Your task to perform on an android device: turn smart compose on in the gmail app Image 0: 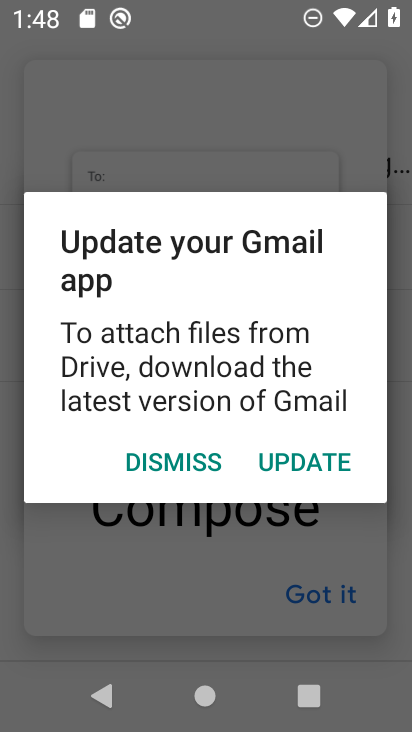
Step 0: press home button
Your task to perform on an android device: turn smart compose on in the gmail app Image 1: 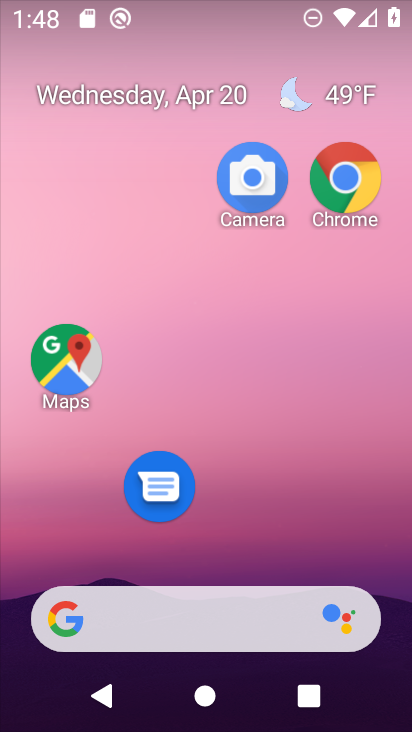
Step 1: drag from (351, 640) to (317, 201)
Your task to perform on an android device: turn smart compose on in the gmail app Image 2: 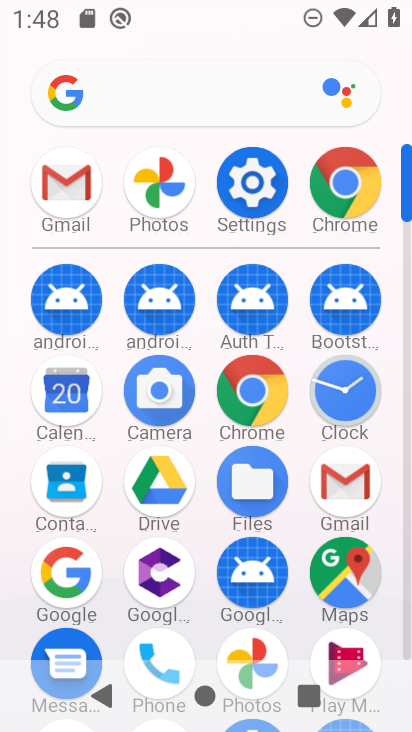
Step 2: click (332, 469)
Your task to perform on an android device: turn smart compose on in the gmail app Image 3: 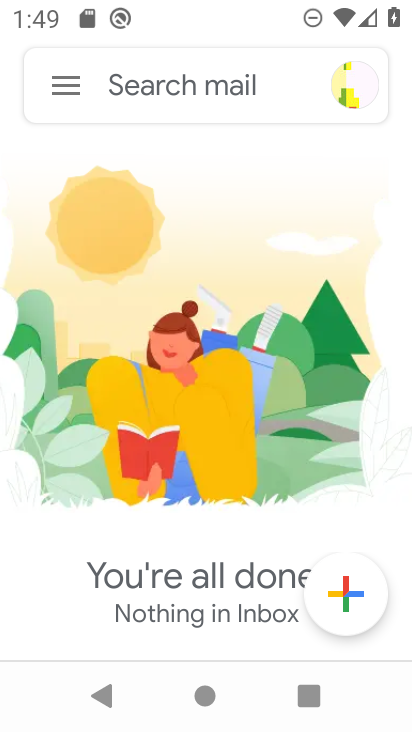
Step 3: click (80, 82)
Your task to perform on an android device: turn smart compose on in the gmail app Image 4: 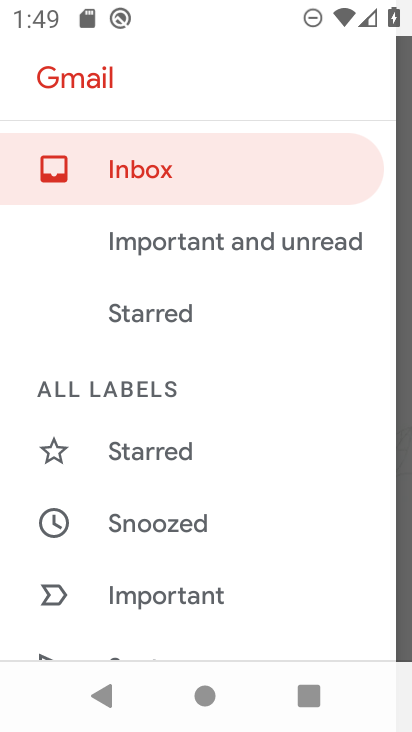
Step 4: drag from (155, 537) to (245, 229)
Your task to perform on an android device: turn smart compose on in the gmail app Image 5: 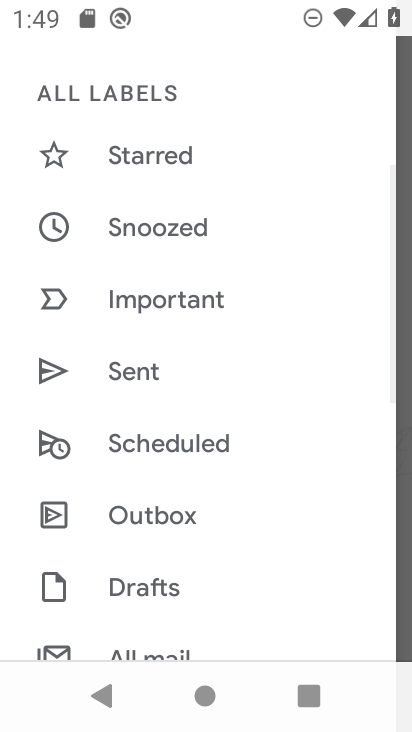
Step 5: drag from (189, 464) to (222, 169)
Your task to perform on an android device: turn smart compose on in the gmail app Image 6: 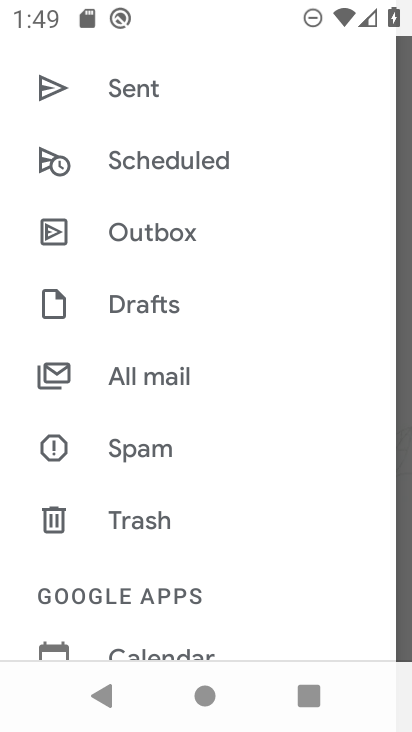
Step 6: drag from (152, 527) to (282, 161)
Your task to perform on an android device: turn smart compose on in the gmail app Image 7: 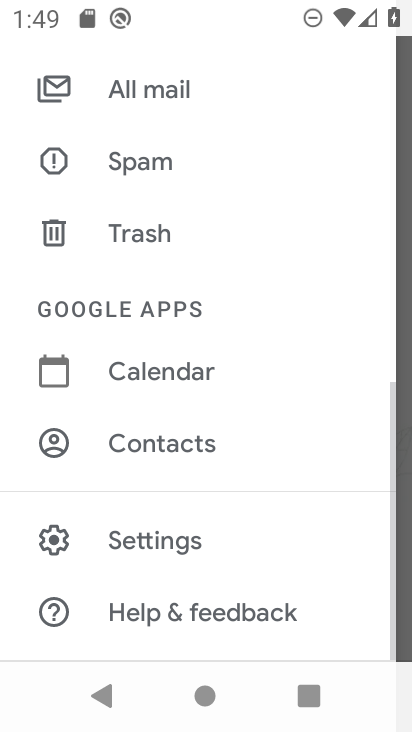
Step 7: click (157, 530)
Your task to perform on an android device: turn smart compose on in the gmail app Image 8: 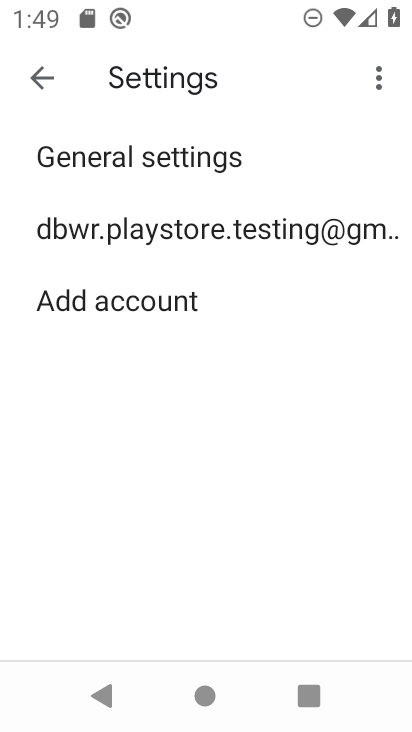
Step 8: click (191, 213)
Your task to perform on an android device: turn smart compose on in the gmail app Image 9: 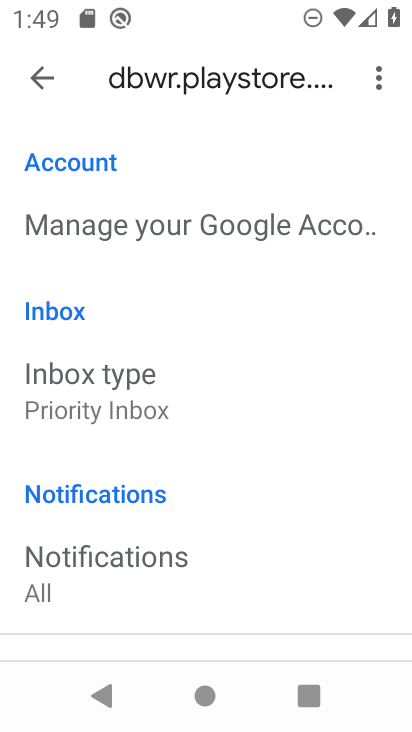
Step 9: drag from (126, 481) to (190, 226)
Your task to perform on an android device: turn smart compose on in the gmail app Image 10: 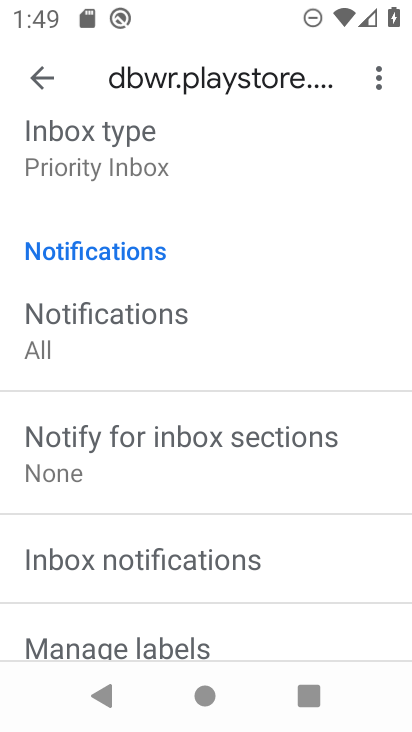
Step 10: drag from (180, 573) to (216, 230)
Your task to perform on an android device: turn smart compose on in the gmail app Image 11: 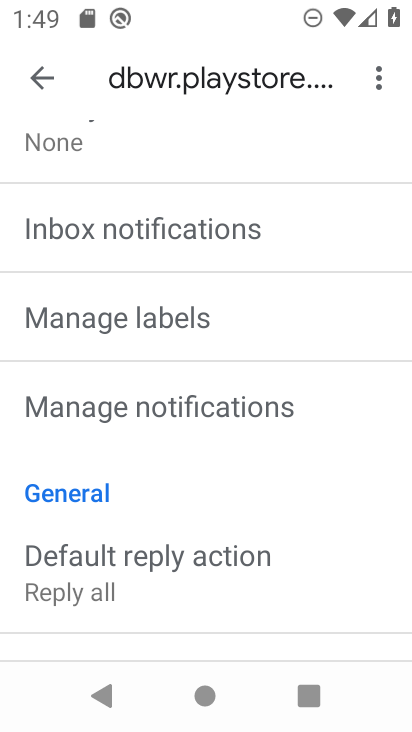
Step 11: drag from (170, 474) to (214, 240)
Your task to perform on an android device: turn smart compose on in the gmail app Image 12: 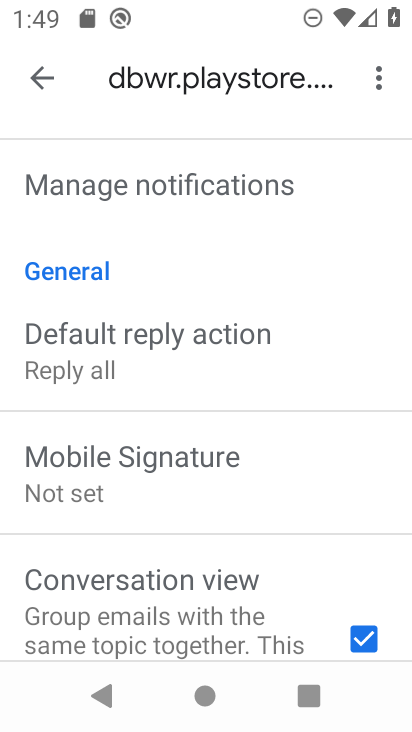
Step 12: drag from (152, 523) to (212, 280)
Your task to perform on an android device: turn smart compose on in the gmail app Image 13: 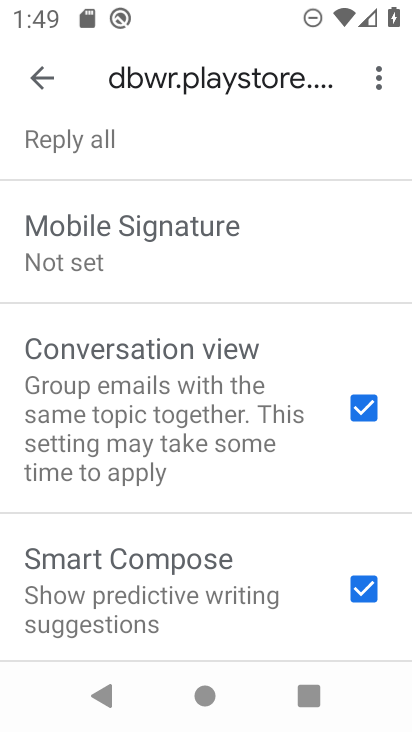
Step 13: click (153, 562)
Your task to perform on an android device: turn smart compose on in the gmail app Image 14: 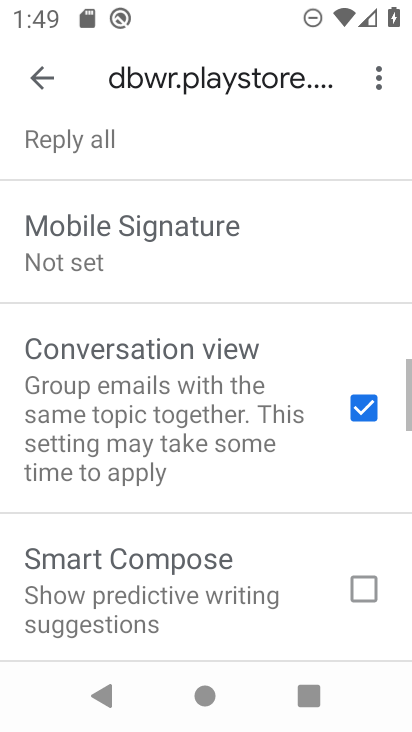
Step 14: click (151, 554)
Your task to perform on an android device: turn smart compose on in the gmail app Image 15: 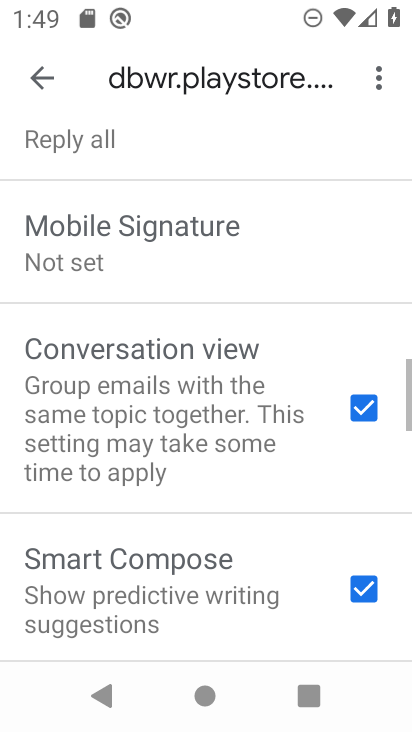
Step 15: task complete